Your task to perform on an android device: What's on my calendar tomorrow? Image 0: 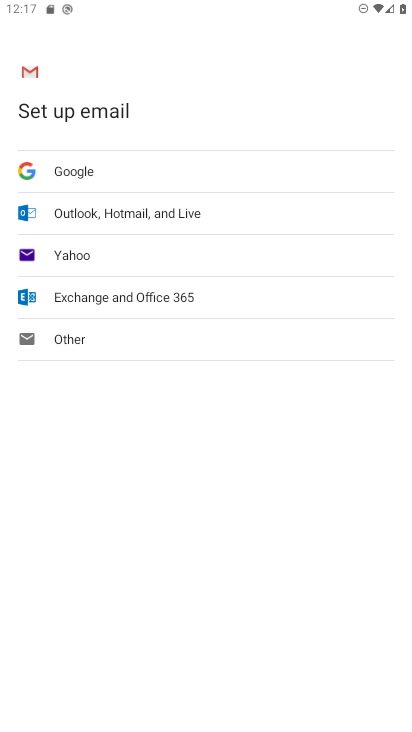
Step 0: press home button
Your task to perform on an android device: What's on my calendar tomorrow? Image 1: 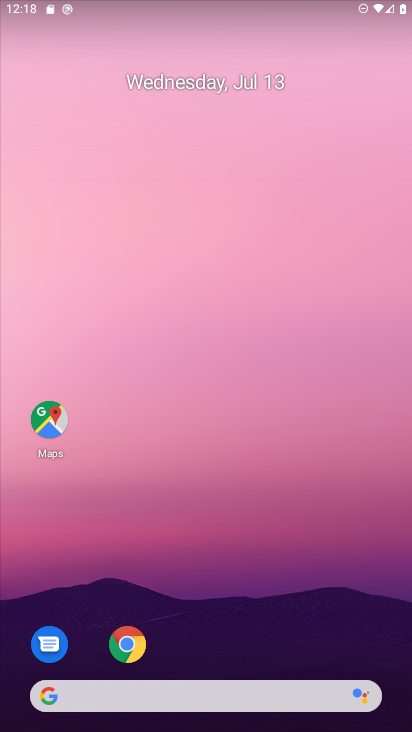
Step 1: drag from (196, 674) to (74, 284)
Your task to perform on an android device: What's on my calendar tomorrow? Image 2: 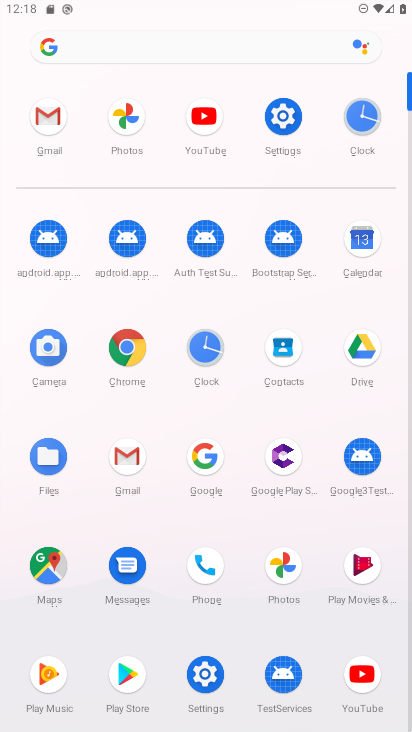
Step 2: click (349, 246)
Your task to perform on an android device: What's on my calendar tomorrow? Image 3: 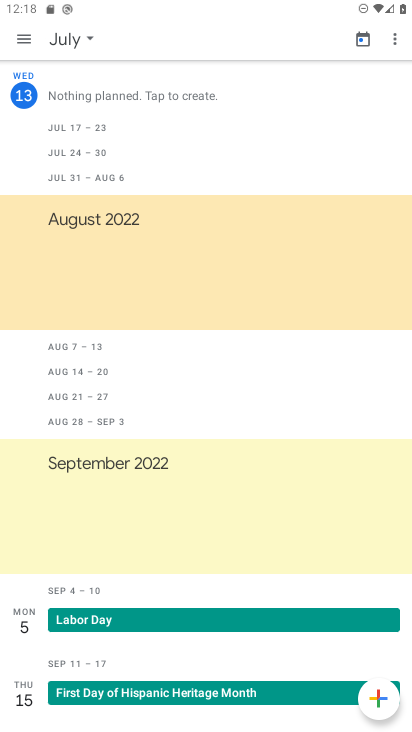
Step 3: click (79, 38)
Your task to perform on an android device: What's on my calendar tomorrow? Image 4: 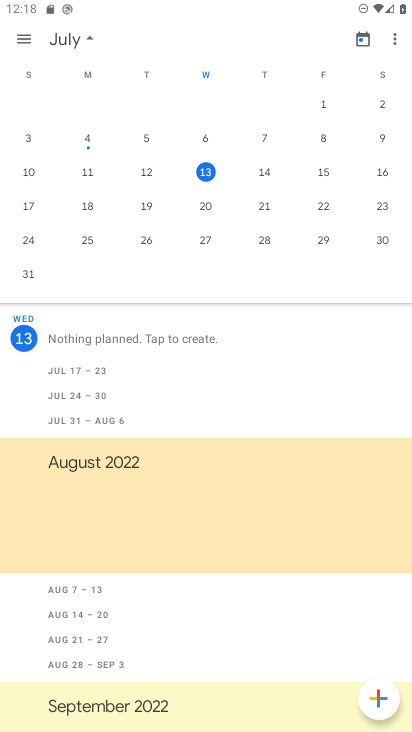
Step 4: click (269, 173)
Your task to perform on an android device: What's on my calendar tomorrow? Image 5: 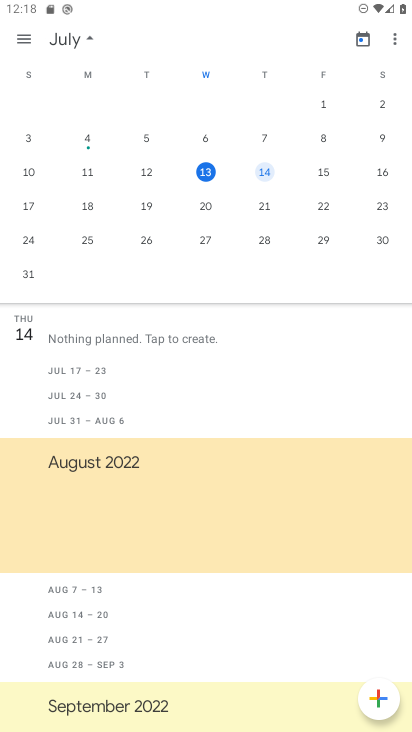
Step 5: task complete